Your task to perform on an android device: create a new album in the google photos Image 0: 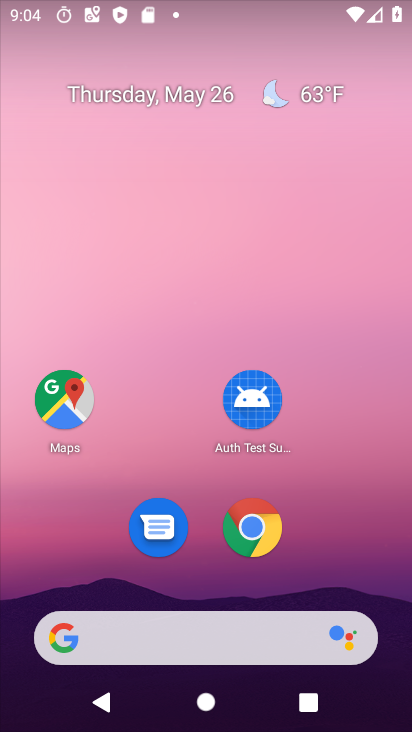
Step 0: drag from (364, 529) to (352, 0)
Your task to perform on an android device: create a new album in the google photos Image 1: 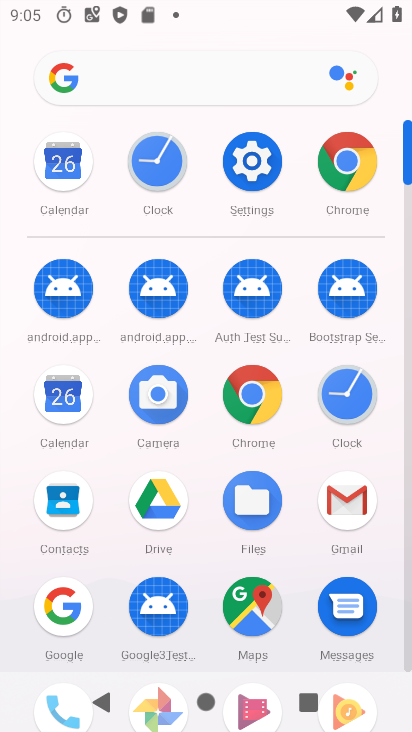
Step 1: drag from (376, 572) to (347, 234)
Your task to perform on an android device: create a new album in the google photos Image 2: 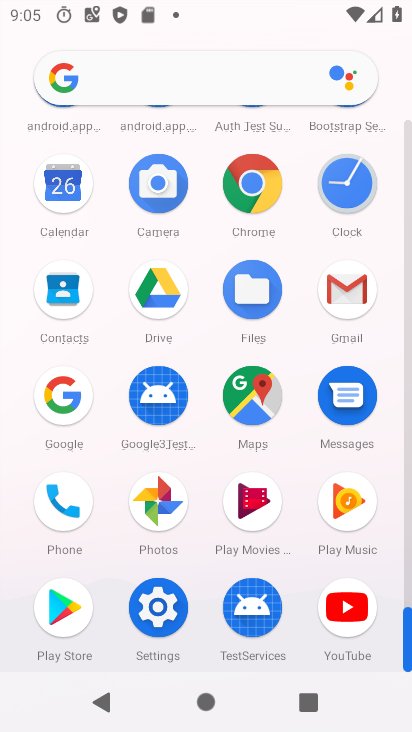
Step 2: click (162, 468)
Your task to perform on an android device: create a new album in the google photos Image 3: 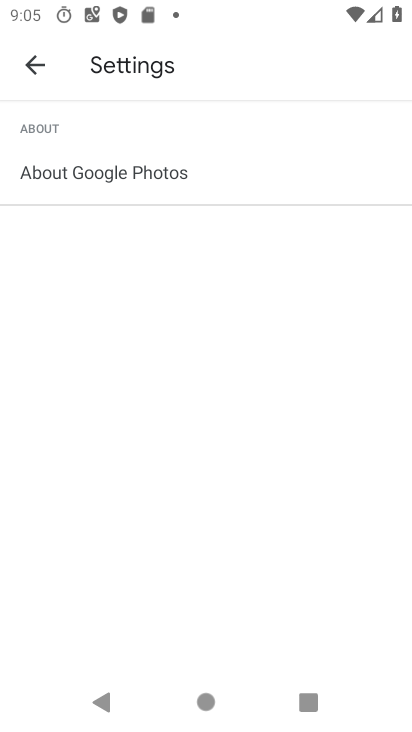
Step 3: press home button
Your task to perform on an android device: create a new album in the google photos Image 4: 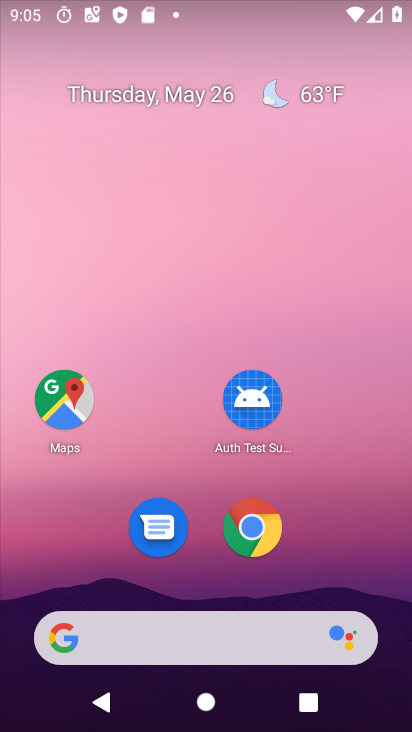
Step 4: drag from (348, 536) to (267, 8)
Your task to perform on an android device: create a new album in the google photos Image 5: 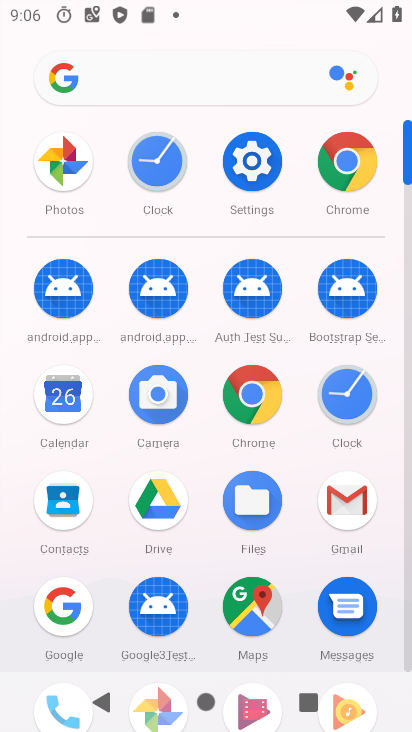
Step 5: click (79, 180)
Your task to perform on an android device: create a new album in the google photos Image 6: 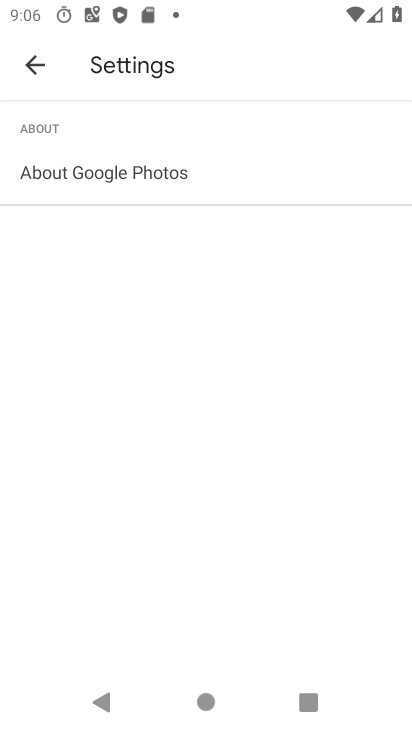
Step 6: click (46, 76)
Your task to perform on an android device: create a new album in the google photos Image 7: 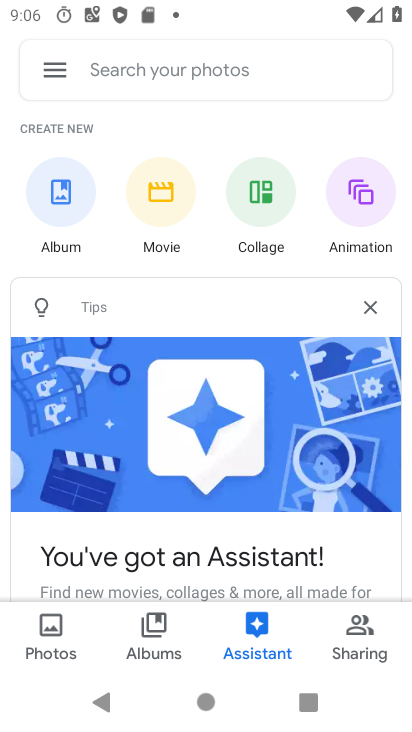
Step 7: click (149, 638)
Your task to perform on an android device: create a new album in the google photos Image 8: 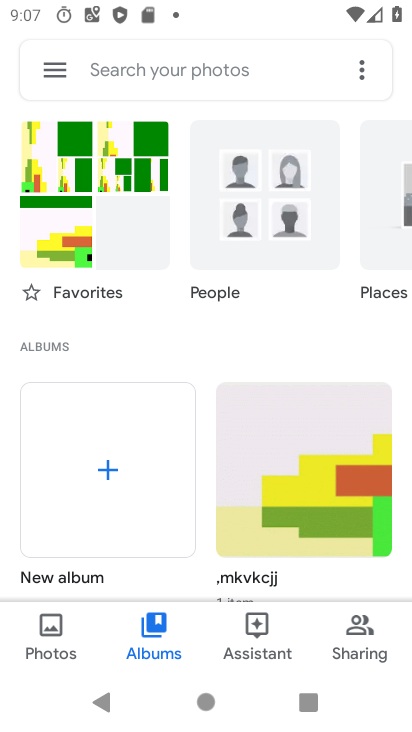
Step 8: task complete